Your task to perform on an android device: turn off location Image 0: 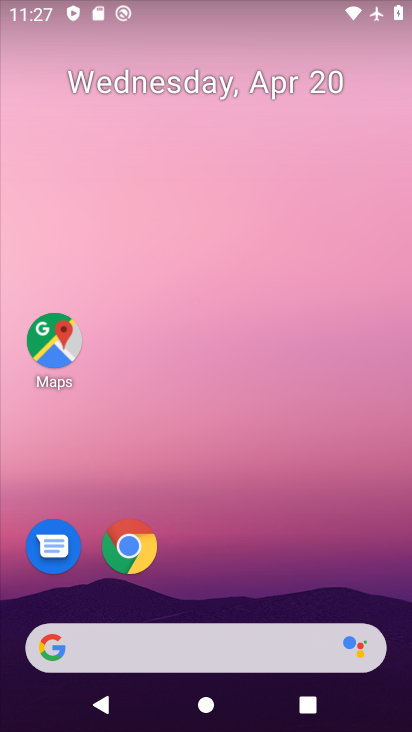
Step 0: drag from (169, 646) to (313, 87)
Your task to perform on an android device: turn off location Image 1: 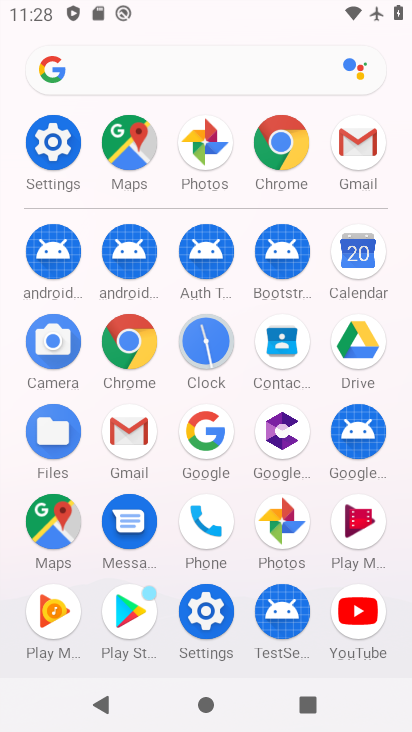
Step 1: click (66, 152)
Your task to perform on an android device: turn off location Image 2: 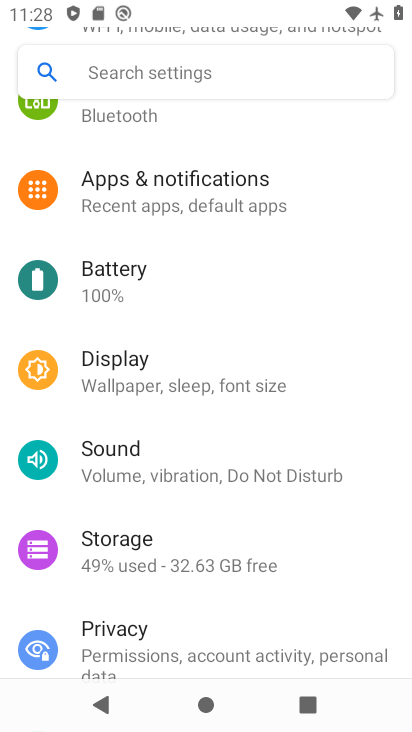
Step 2: drag from (190, 600) to (352, 86)
Your task to perform on an android device: turn off location Image 3: 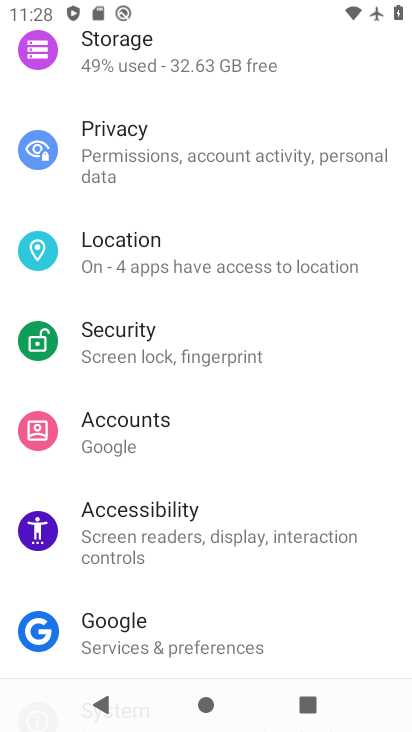
Step 3: click (129, 255)
Your task to perform on an android device: turn off location Image 4: 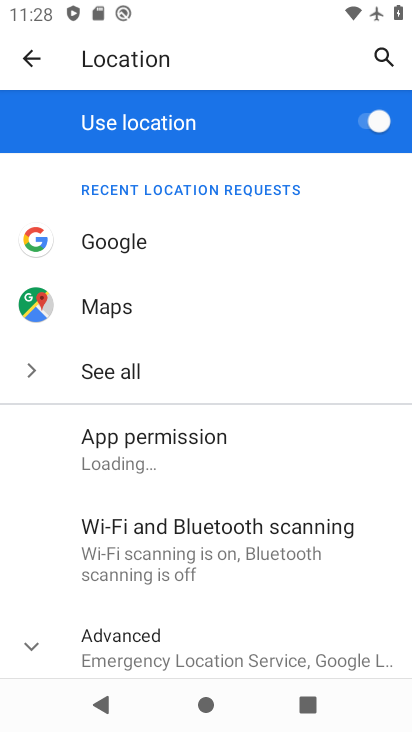
Step 4: click (366, 117)
Your task to perform on an android device: turn off location Image 5: 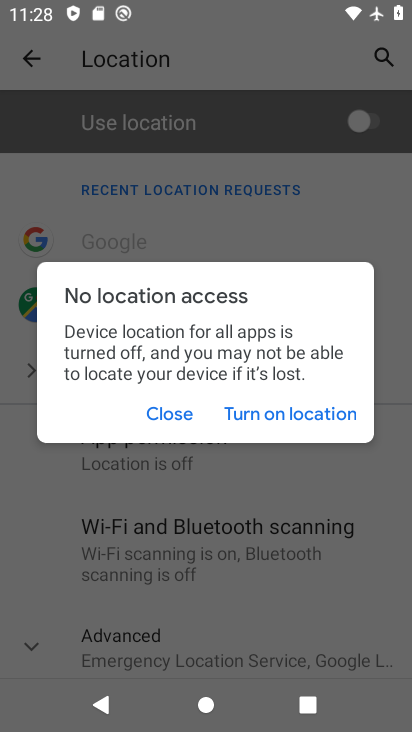
Step 5: task complete